Your task to perform on an android device: all mails in gmail Image 0: 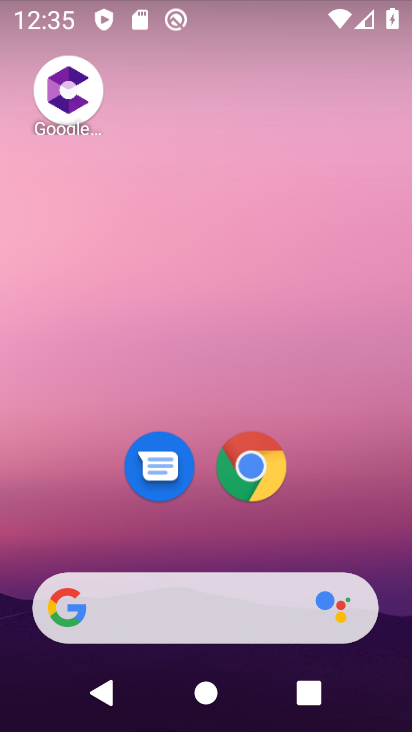
Step 0: task complete